Your task to perform on an android device: toggle sleep mode Image 0: 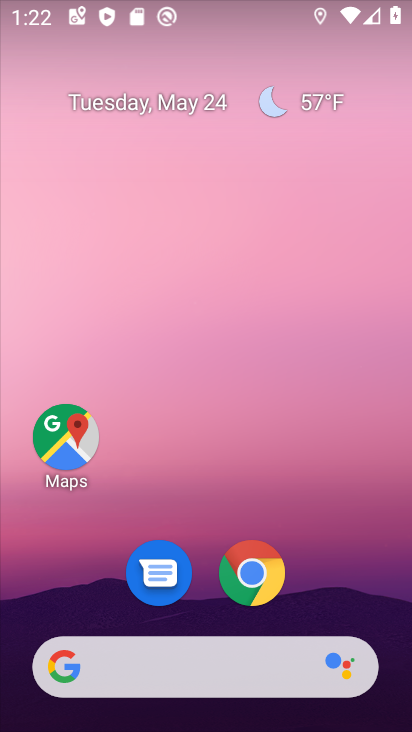
Step 0: drag from (366, 578) to (359, 74)
Your task to perform on an android device: toggle sleep mode Image 1: 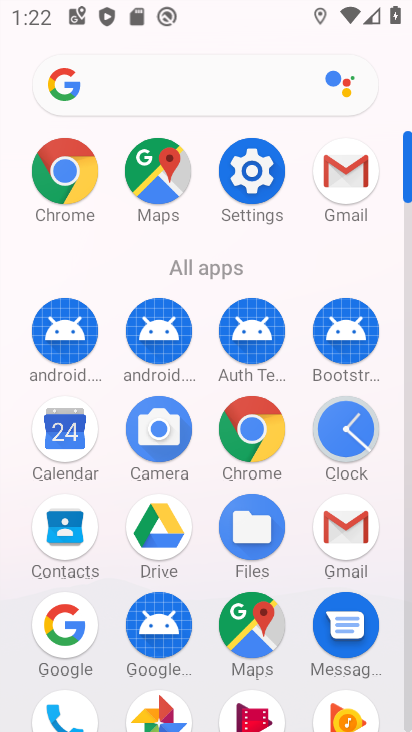
Step 1: click (262, 185)
Your task to perform on an android device: toggle sleep mode Image 2: 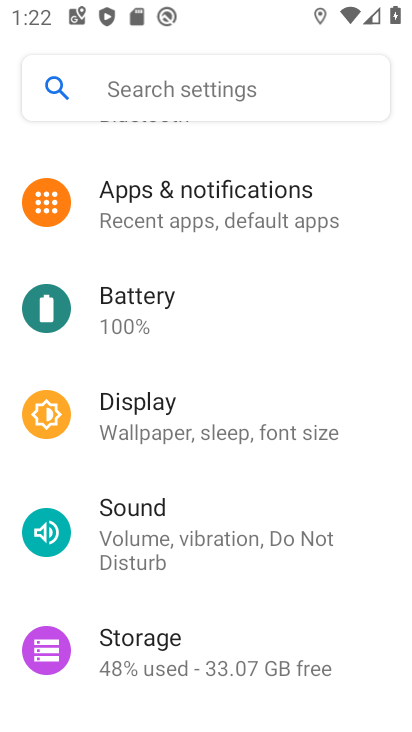
Step 2: click (142, 84)
Your task to perform on an android device: toggle sleep mode Image 3: 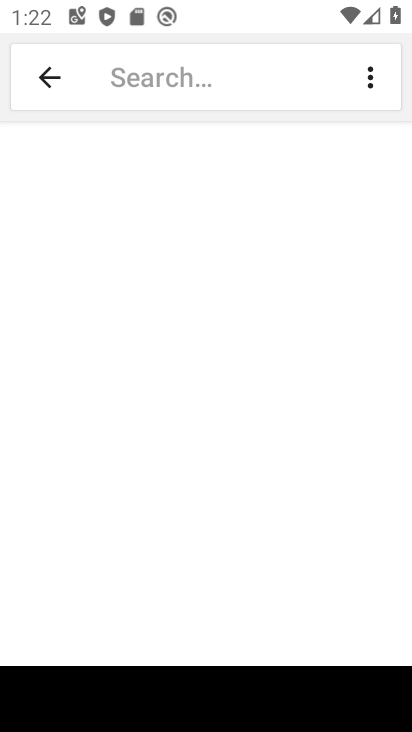
Step 3: type "sleep mode"
Your task to perform on an android device: toggle sleep mode Image 4: 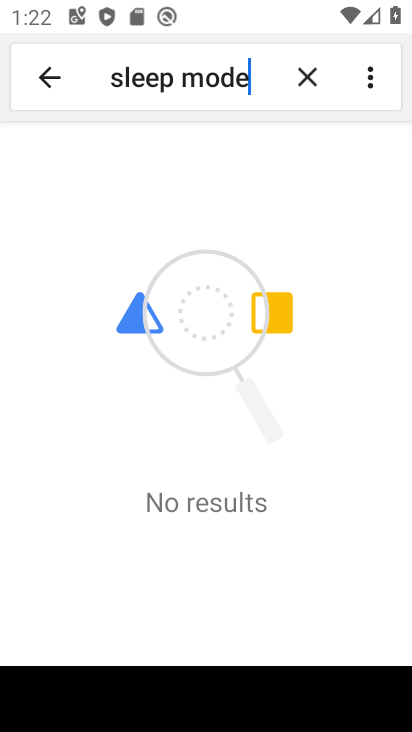
Step 4: task complete